Your task to perform on an android device: Open the calendar and show me this week's events Image 0: 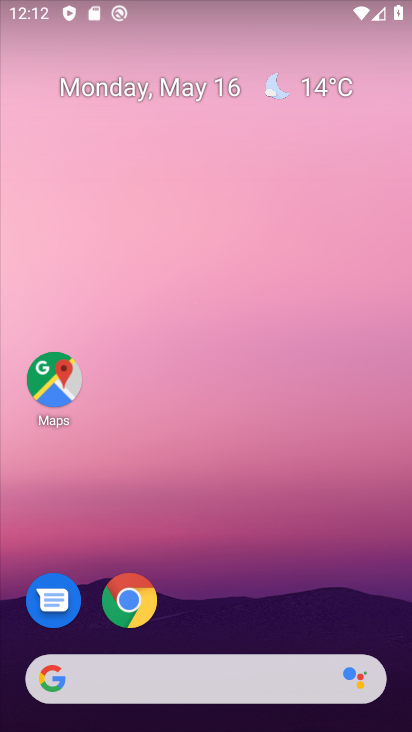
Step 0: press home button
Your task to perform on an android device: Open the calendar and show me this week's events Image 1: 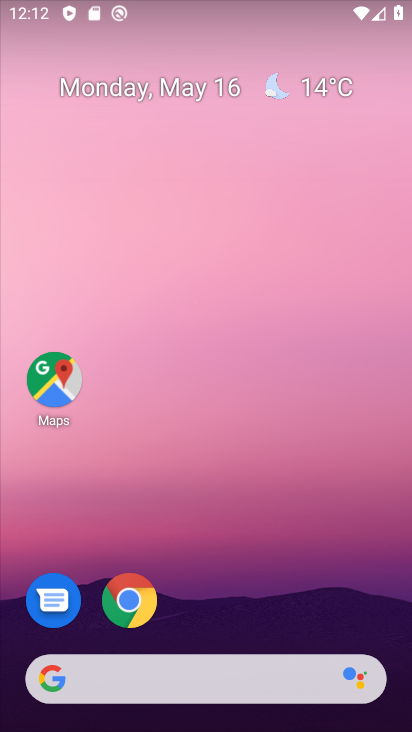
Step 1: drag from (218, 635) to (261, 5)
Your task to perform on an android device: Open the calendar and show me this week's events Image 2: 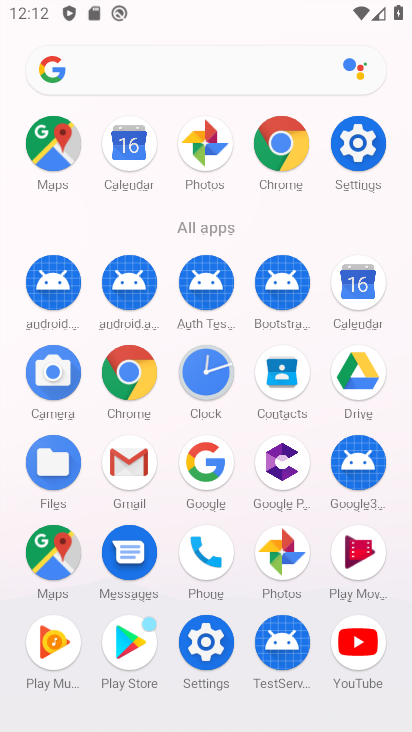
Step 2: click (357, 278)
Your task to perform on an android device: Open the calendar and show me this week's events Image 3: 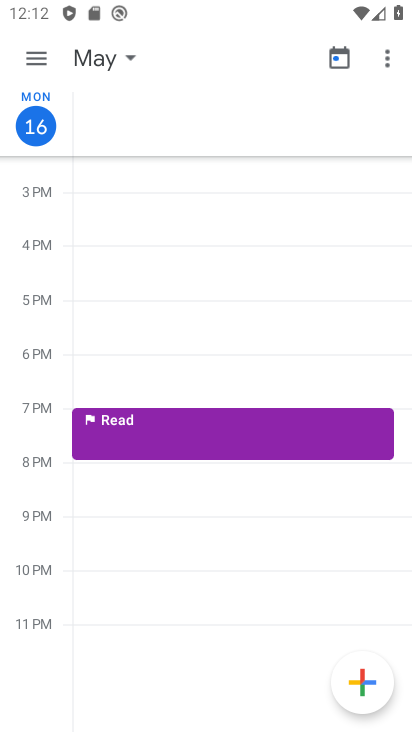
Step 3: click (61, 137)
Your task to perform on an android device: Open the calendar and show me this week's events Image 4: 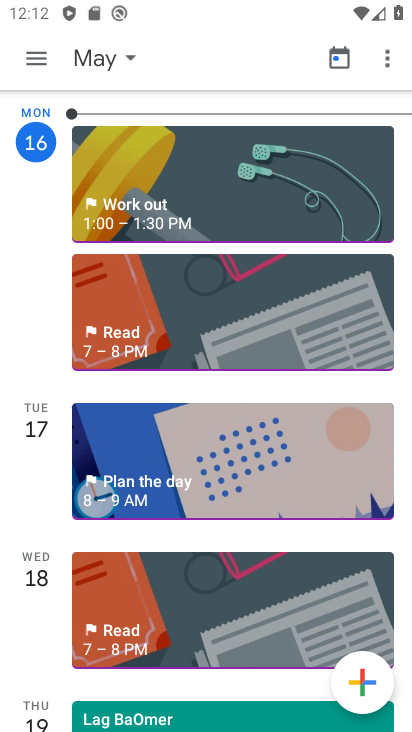
Step 4: drag from (47, 622) to (67, 181)
Your task to perform on an android device: Open the calendar and show me this week's events Image 5: 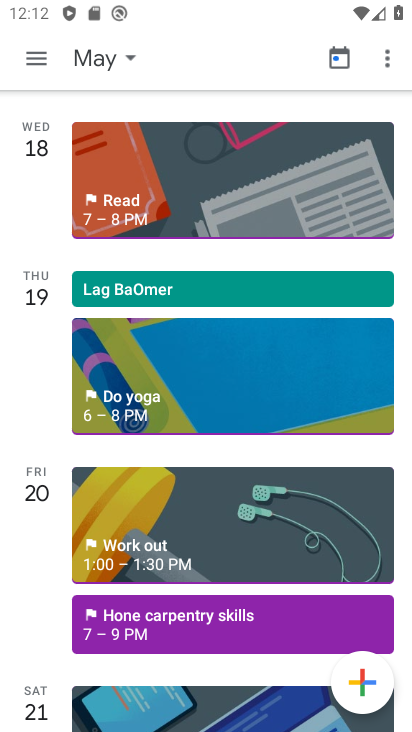
Step 5: drag from (48, 643) to (43, 216)
Your task to perform on an android device: Open the calendar and show me this week's events Image 6: 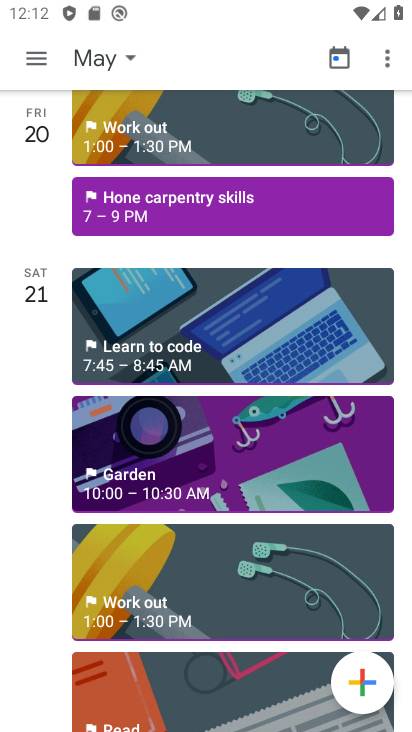
Step 6: click (37, 56)
Your task to perform on an android device: Open the calendar and show me this week's events Image 7: 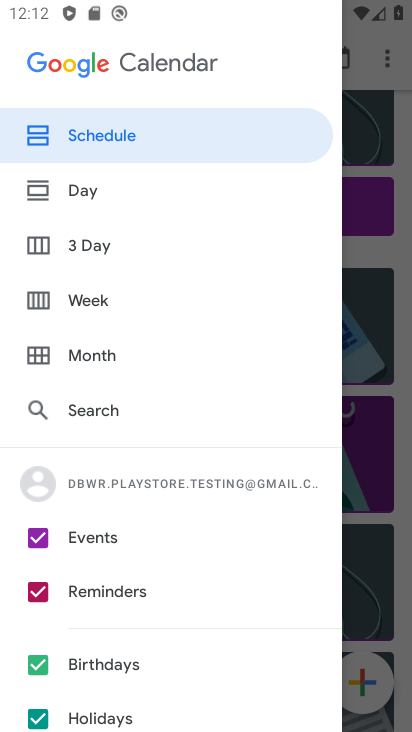
Step 7: click (40, 589)
Your task to perform on an android device: Open the calendar and show me this week's events Image 8: 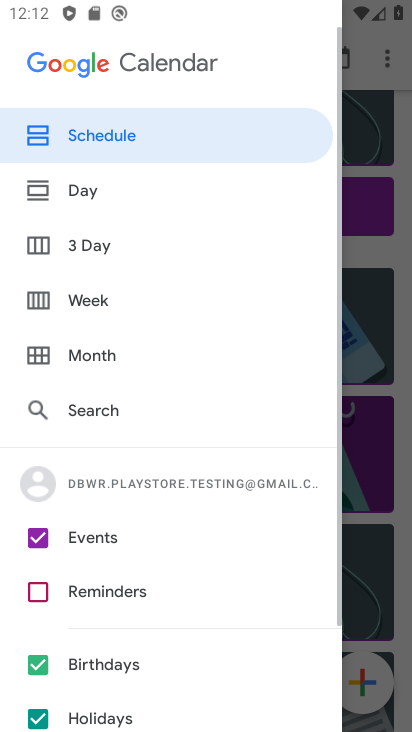
Step 8: click (44, 660)
Your task to perform on an android device: Open the calendar and show me this week's events Image 9: 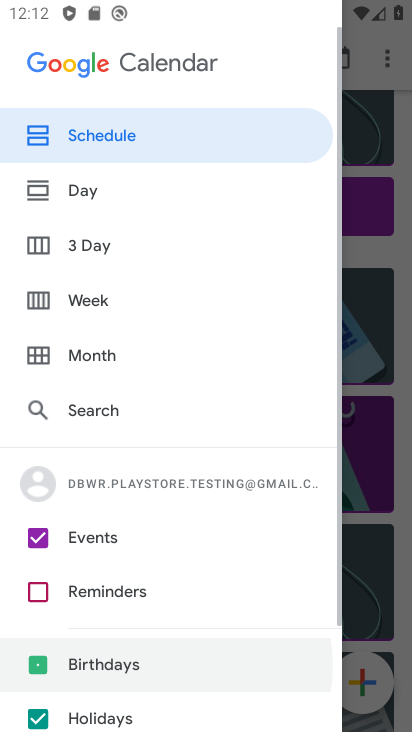
Step 9: click (42, 722)
Your task to perform on an android device: Open the calendar and show me this week's events Image 10: 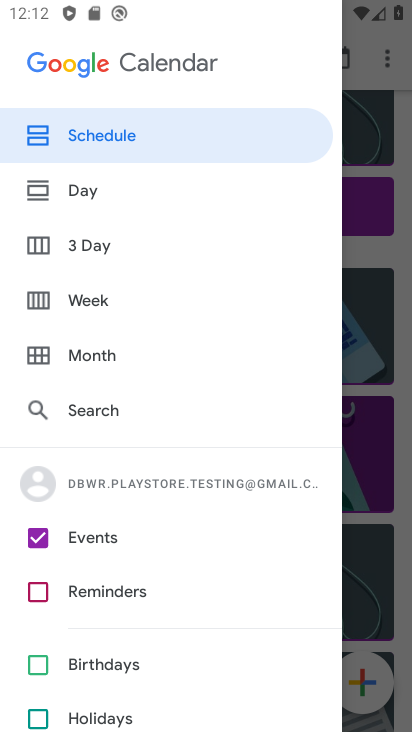
Step 10: click (78, 129)
Your task to perform on an android device: Open the calendar and show me this week's events Image 11: 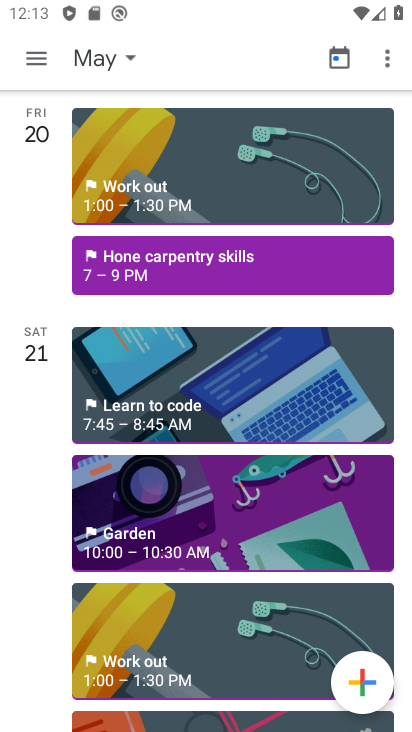
Step 11: task complete